Your task to perform on an android device: Do I have any events today? Image 0: 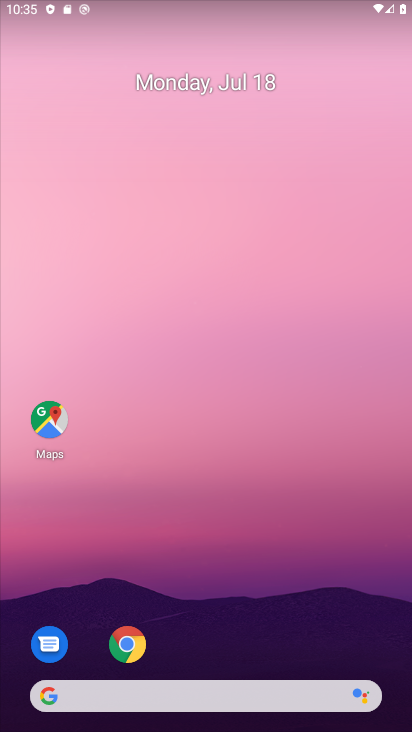
Step 0: drag from (216, 631) to (208, 159)
Your task to perform on an android device: Do I have any events today? Image 1: 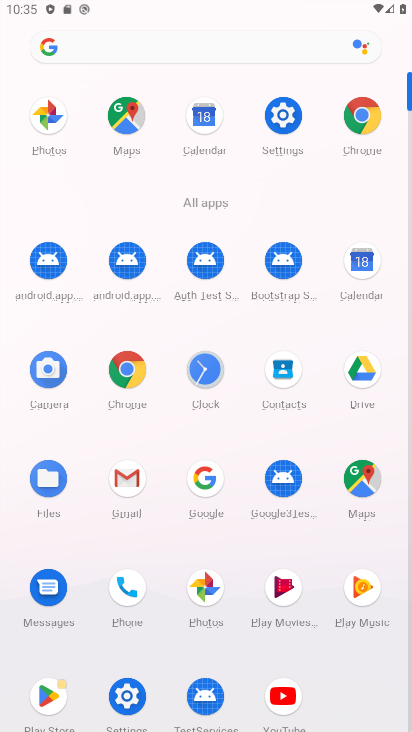
Step 1: click (354, 255)
Your task to perform on an android device: Do I have any events today? Image 2: 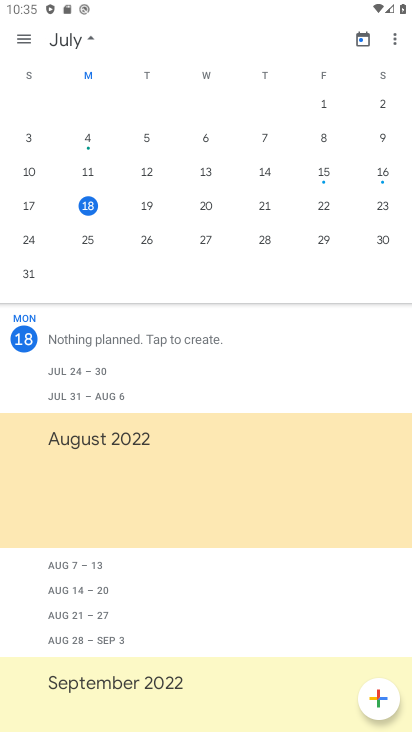
Step 2: click (84, 203)
Your task to perform on an android device: Do I have any events today? Image 3: 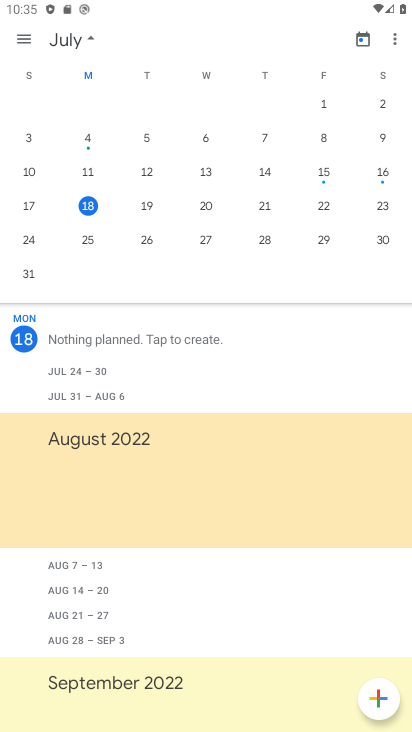
Step 3: task complete